Your task to perform on an android device: see creations saved in the google photos Image 0: 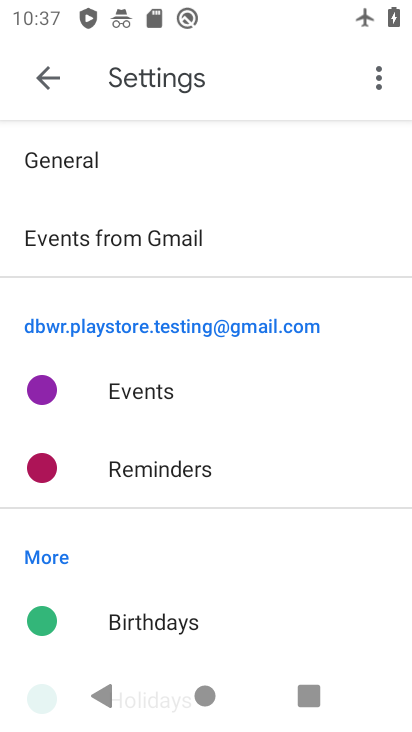
Step 0: press home button
Your task to perform on an android device: see creations saved in the google photos Image 1: 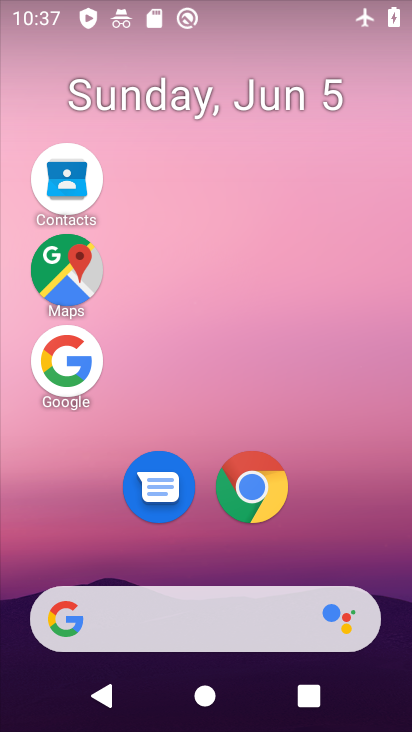
Step 1: drag from (186, 487) to (211, 99)
Your task to perform on an android device: see creations saved in the google photos Image 2: 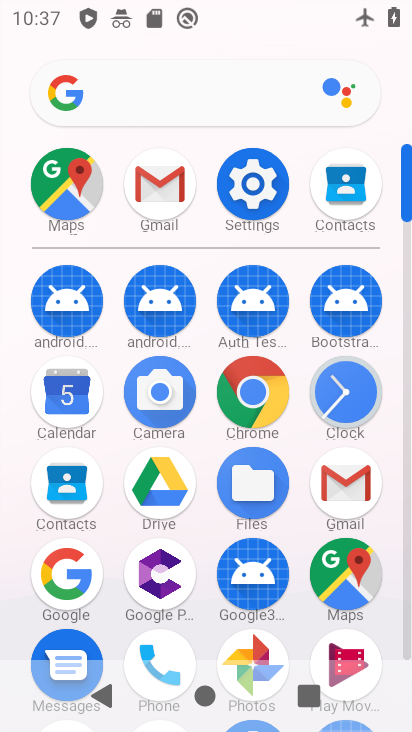
Step 2: drag from (200, 471) to (214, 75)
Your task to perform on an android device: see creations saved in the google photos Image 3: 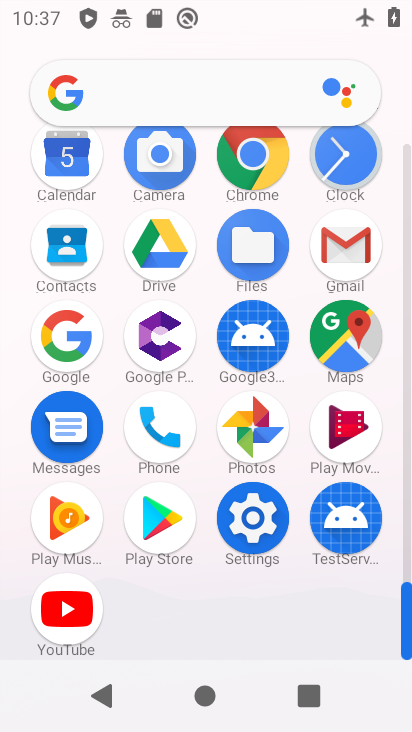
Step 3: click (268, 447)
Your task to perform on an android device: see creations saved in the google photos Image 4: 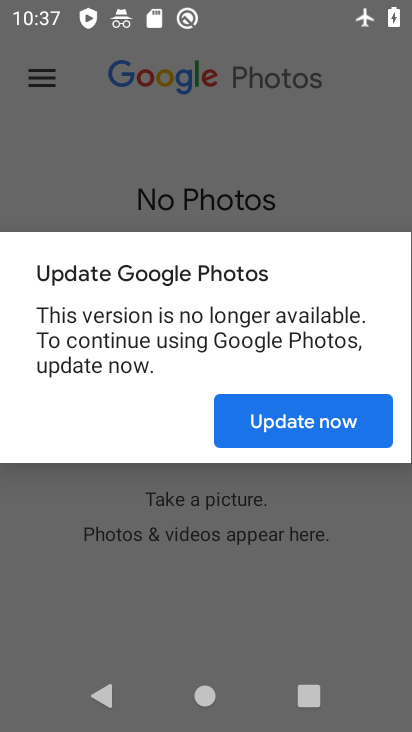
Step 4: click (149, 163)
Your task to perform on an android device: see creations saved in the google photos Image 5: 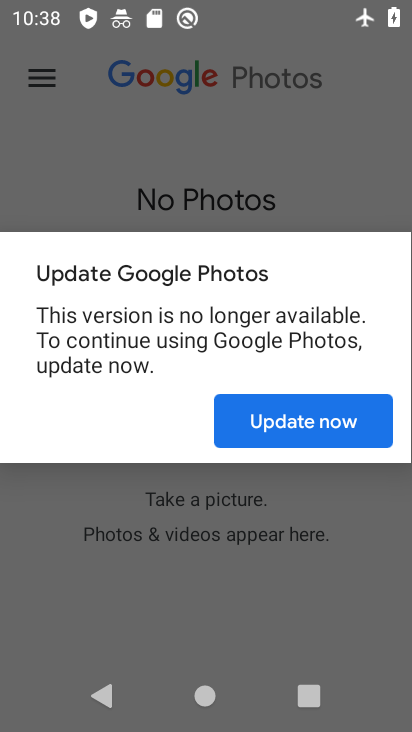
Step 5: task complete